Your task to perform on an android device: turn pop-ups off in chrome Image 0: 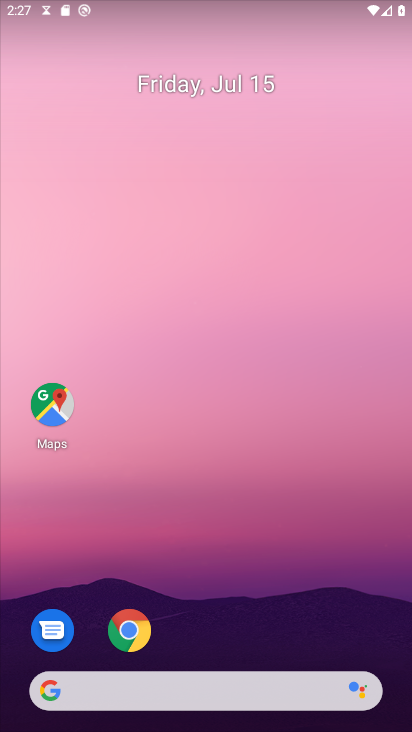
Step 0: drag from (274, 590) to (248, 152)
Your task to perform on an android device: turn pop-ups off in chrome Image 1: 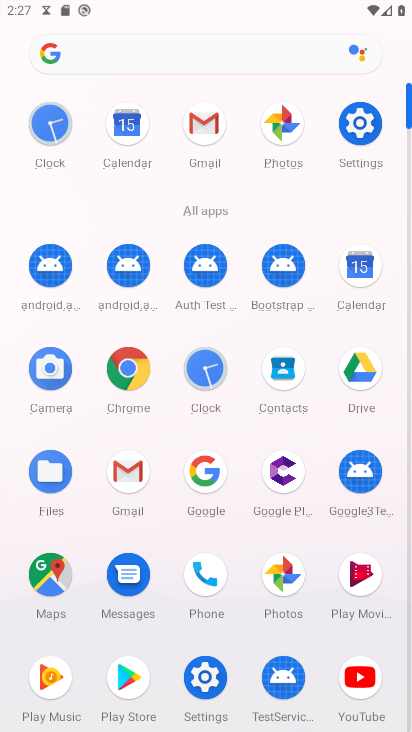
Step 1: click (129, 363)
Your task to perform on an android device: turn pop-ups off in chrome Image 2: 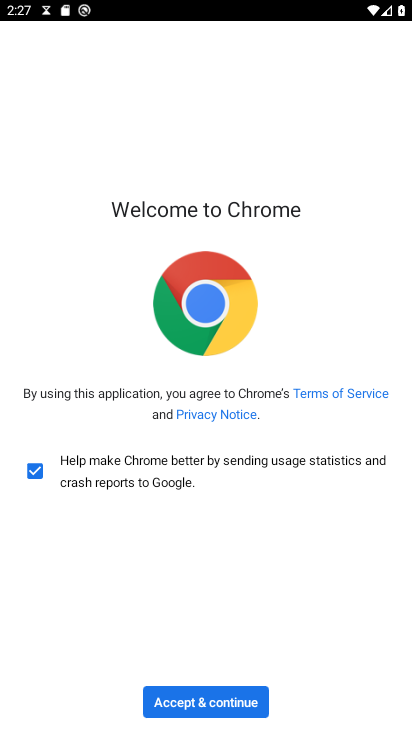
Step 2: click (212, 689)
Your task to perform on an android device: turn pop-ups off in chrome Image 3: 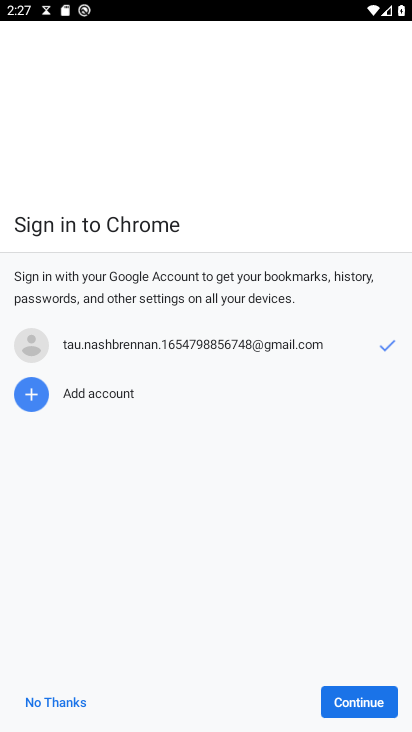
Step 3: click (64, 701)
Your task to perform on an android device: turn pop-ups off in chrome Image 4: 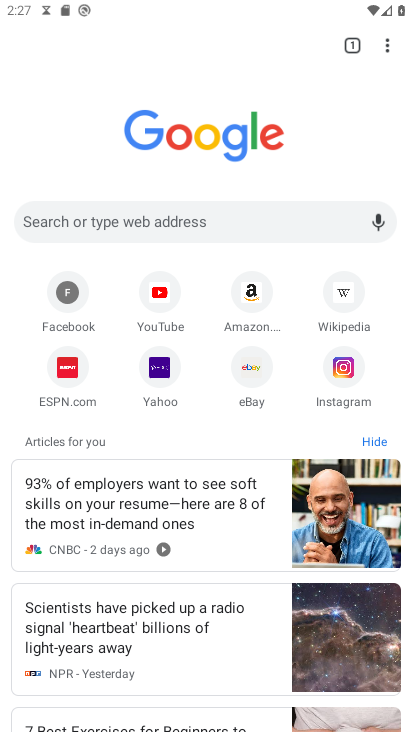
Step 4: drag from (383, 37) to (239, 379)
Your task to perform on an android device: turn pop-ups off in chrome Image 5: 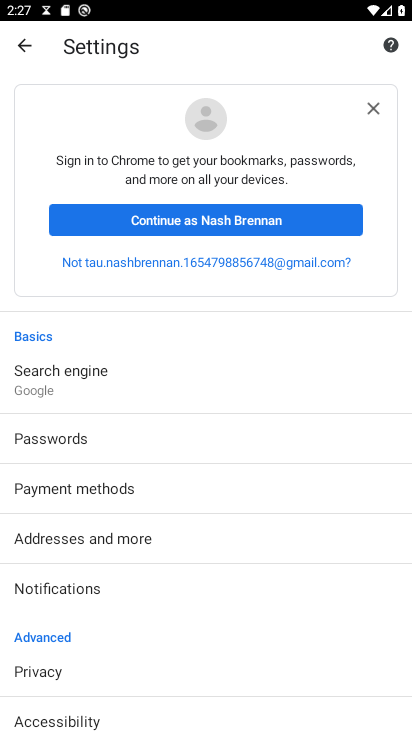
Step 5: drag from (134, 651) to (103, 235)
Your task to perform on an android device: turn pop-ups off in chrome Image 6: 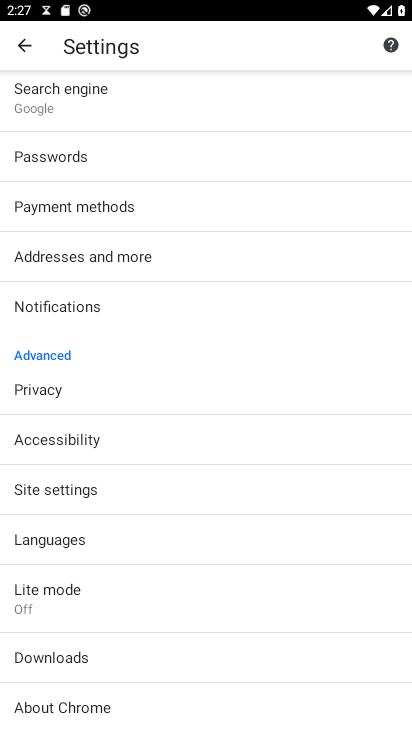
Step 6: click (45, 488)
Your task to perform on an android device: turn pop-ups off in chrome Image 7: 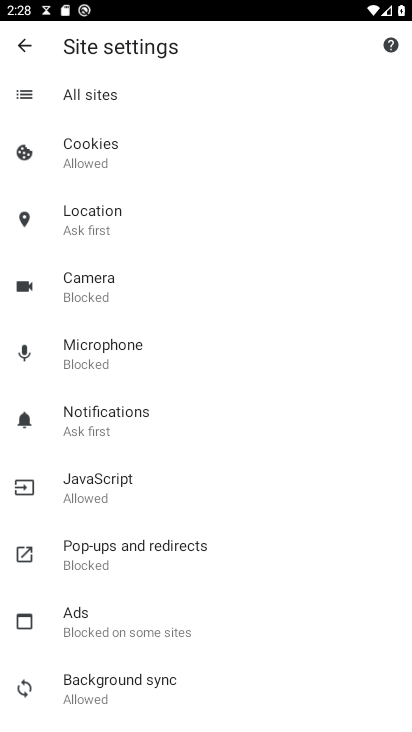
Step 7: click (125, 549)
Your task to perform on an android device: turn pop-ups off in chrome Image 8: 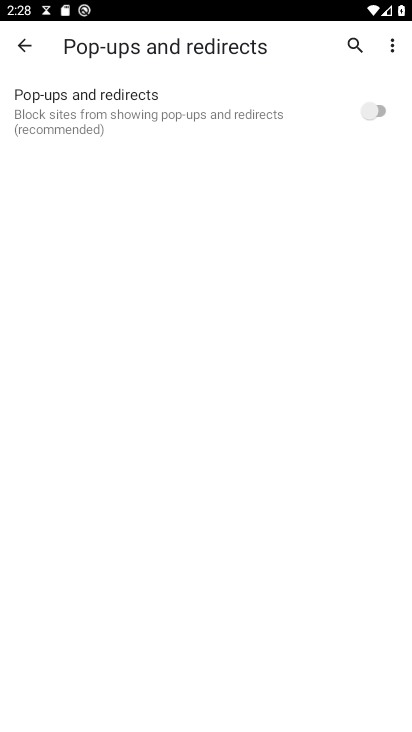
Step 8: task complete